Your task to perform on an android device: Open settings on Google Maps Image 0: 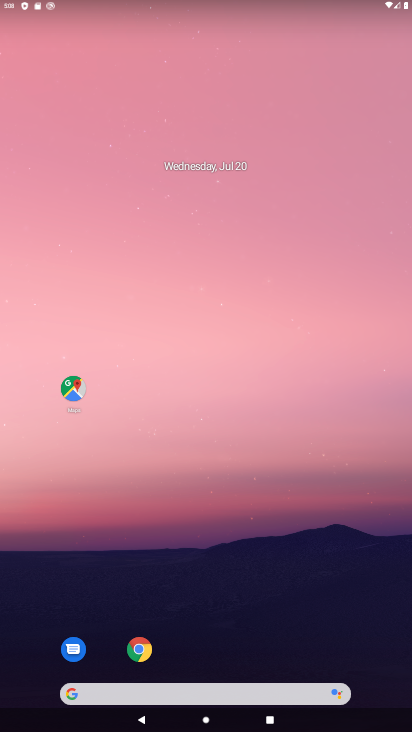
Step 0: drag from (380, 610) to (287, 0)
Your task to perform on an android device: Open settings on Google Maps Image 1: 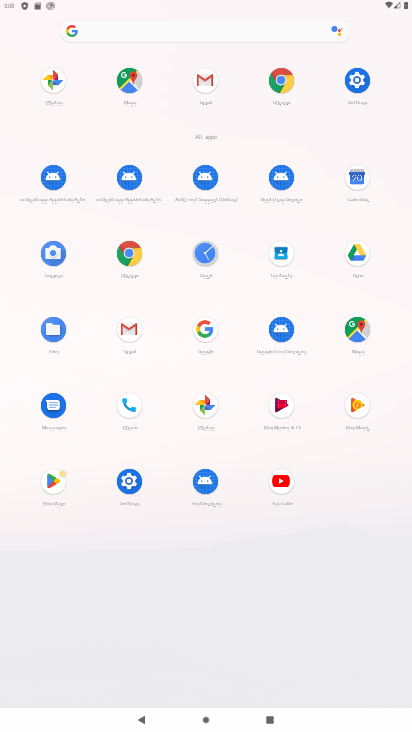
Step 1: click (131, 89)
Your task to perform on an android device: Open settings on Google Maps Image 2: 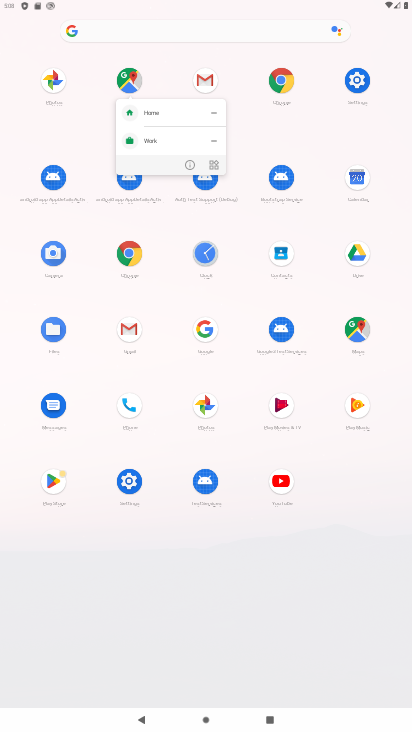
Step 2: click (131, 84)
Your task to perform on an android device: Open settings on Google Maps Image 3: 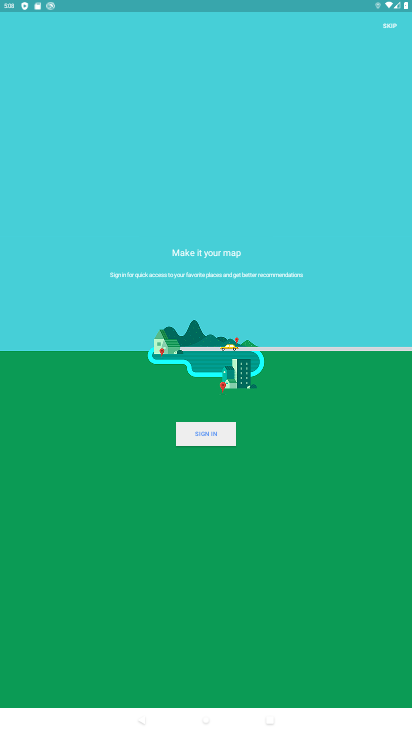
Step 3: click (210, 434)
Your task to perform on an android device: Open settings on Google Maps Image 4: 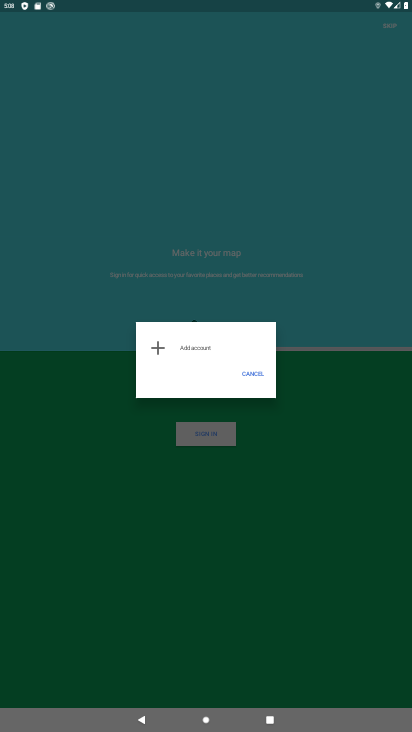
Step 4: task complete